Your task to perform on an android device: See recent photos Image 0: 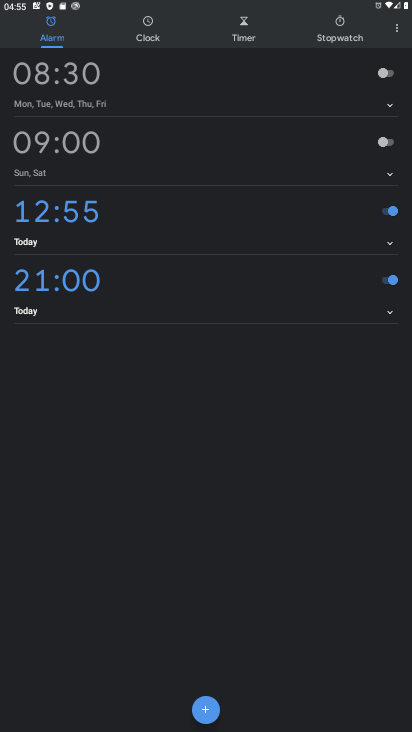
Step 0: press home button
Your task to perform on an android device: See recent photos Image 1: 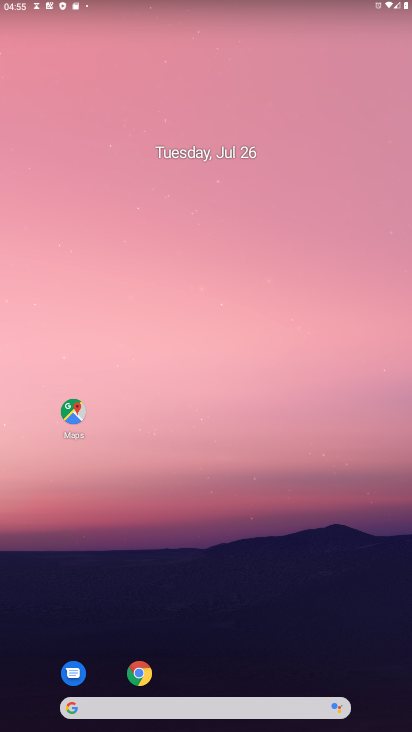
Step 1: drag from (188, 703) to (200, 6)
Your task to perform on an android device: See recent photos Image 2: 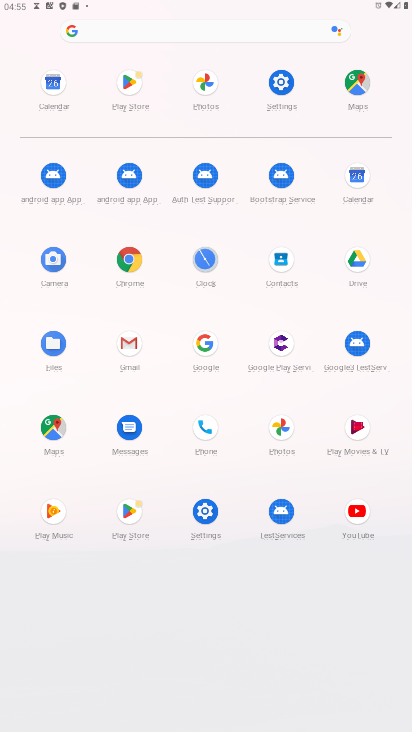
Step 2: click (282, 425)
Your task to perform on an android device: See recent photos Image 3: 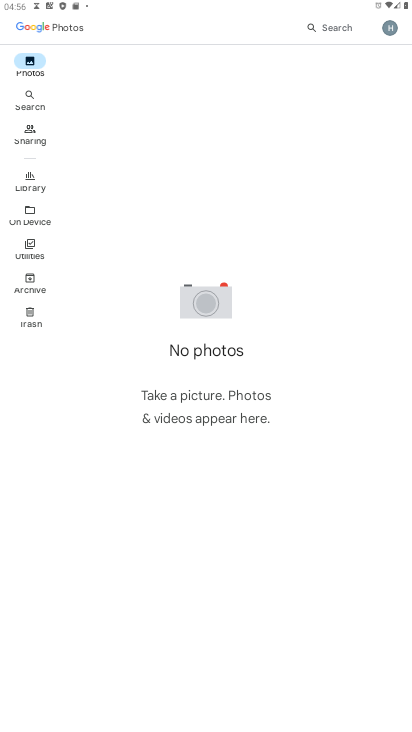
Step 3: click (34, 135)
Your task to perform on an android device: See recent photos Image 4: 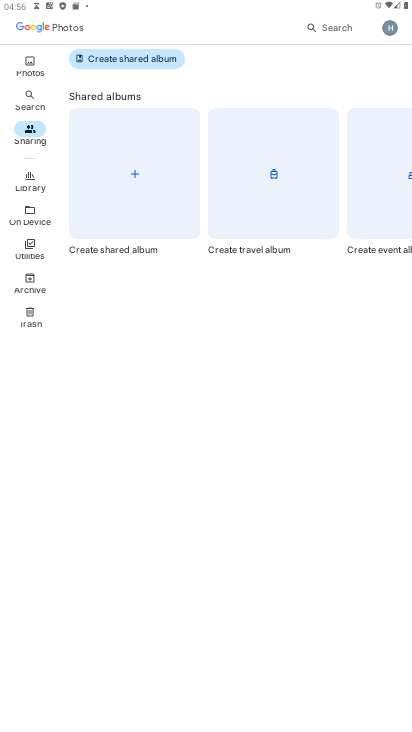
Step 4: click (33, 188)
Your task to perform on an android device: See recent photos Image 5: 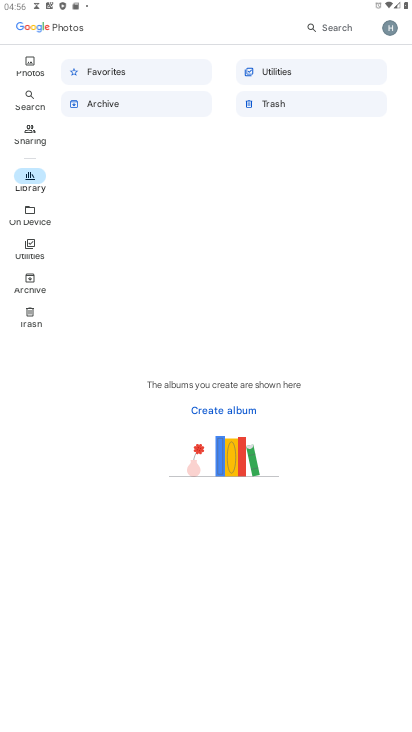
Step 5: click (111, 108)
Your task to perform on an android device: See recent photos Image 6: 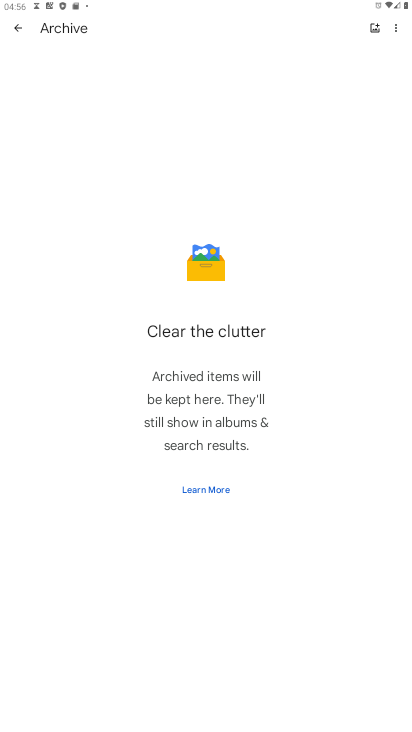
Step 6: task complete